Your task to perform on an android device: change the clock display to show seconds Image 0: 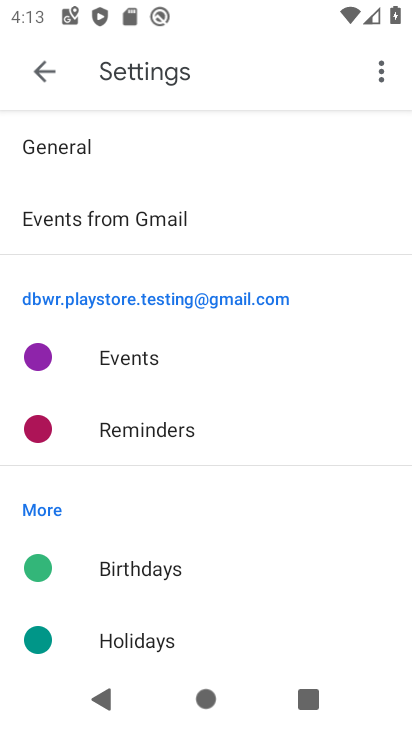
Step 0: press home button
Your task to perform on an android device: change the clock display to show seconds Image 1: 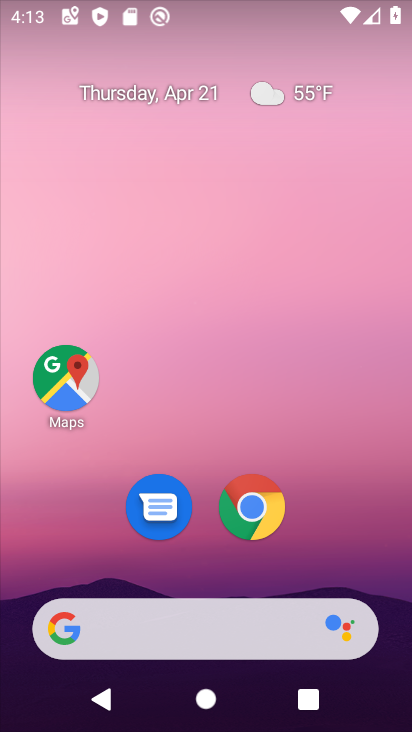
Step 1: drag from (322, 580) to (288, 181)
Your task to perform on an android device: change the clock display to show seconds Image 2: 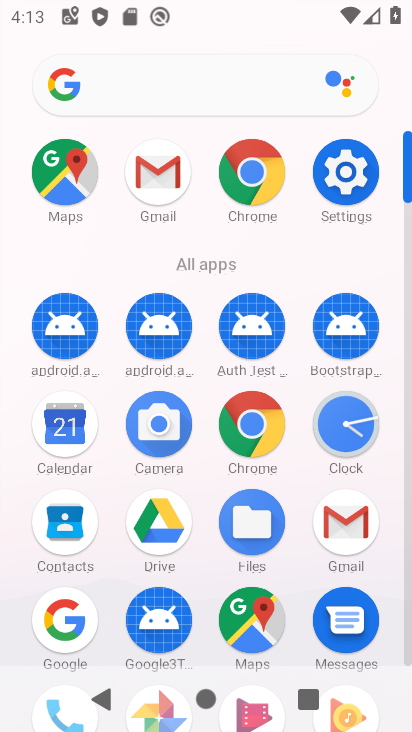
Step 2: click (349, 410)
Your task to perform on an android device: change the clock display to show seconds Image 3: 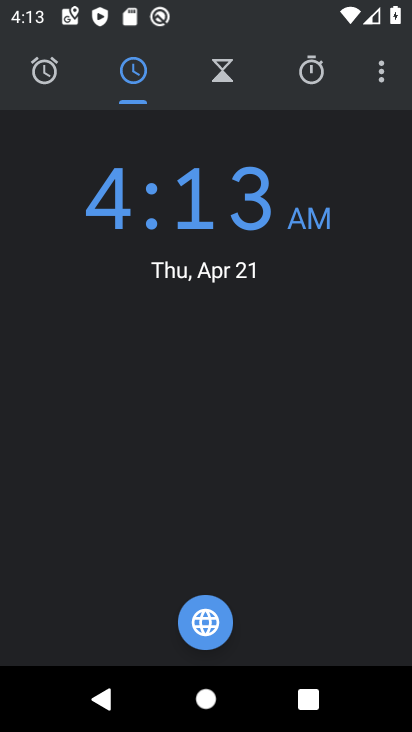
Step 3: click (384, 83)
Your task to perform on an android device: change the clock display to show seconds Image 4: 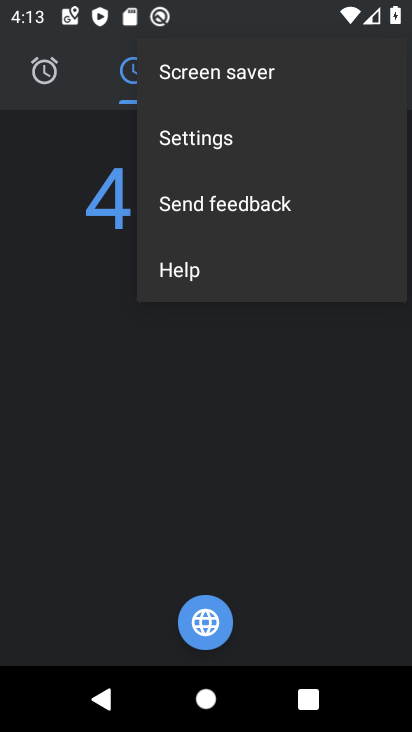
Step 4: click (279, 162)
Your task to perform on an android device: change the clock display to show seconds Image 5: 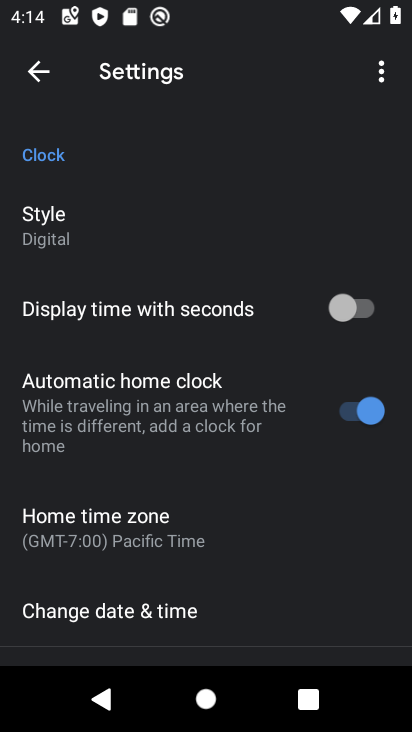
Step 5: click (364, 326)
Your task to perform on an android device: change the clock display to show seconds Image 6: 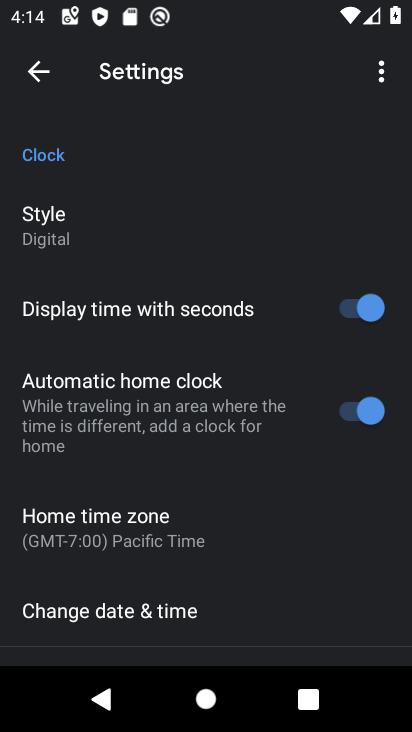
Step 6: task complete